Your task to perform on an android device: Search for vegetarian restaurants on Maps Image 0: 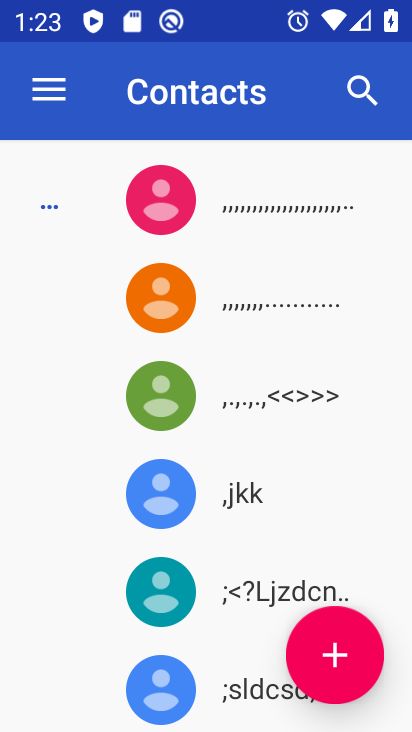
Step 0: press home button
Your task to perform on an android device: Search for vegetarian restaurants on Maps Image 1: 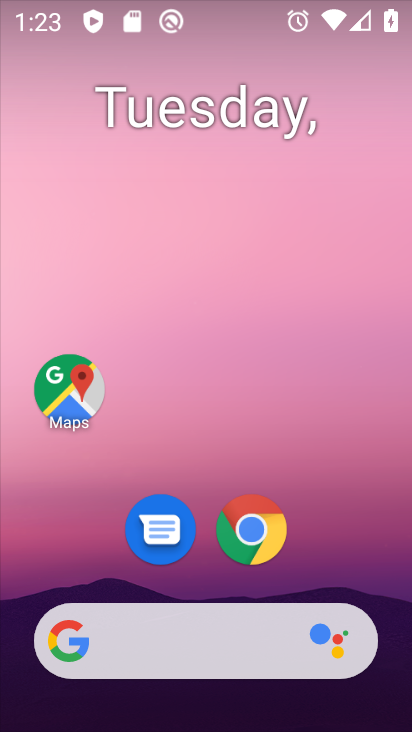
Step 1: click (65, 376)
Your task to perform on an android device: Search for vegetarian restaurants on Maps Image 2: 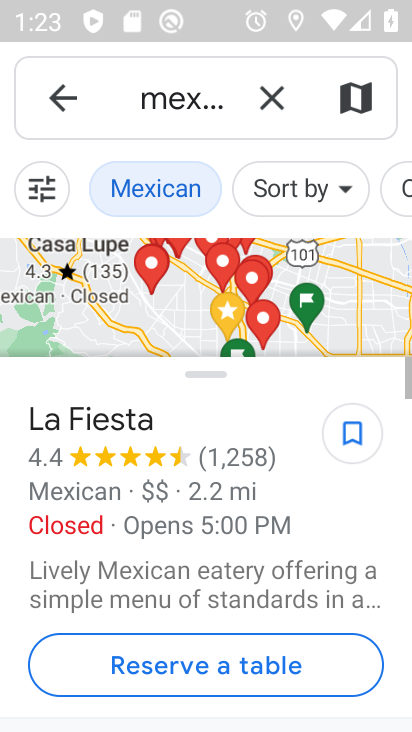
Step 2: click (270, 88)
Your task to perform on an android device: Search for vegetarian restaurants on Maps Image 3: 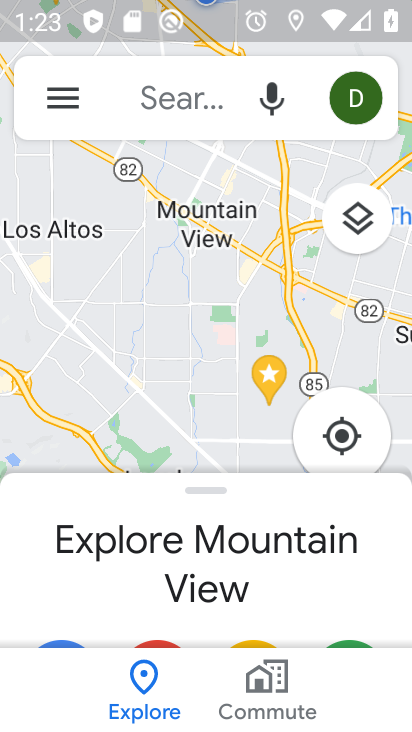
Step 3: click (173, 97)
Your task to perform on an android device: Search for vegetarian restaurants on Maps Image 4: 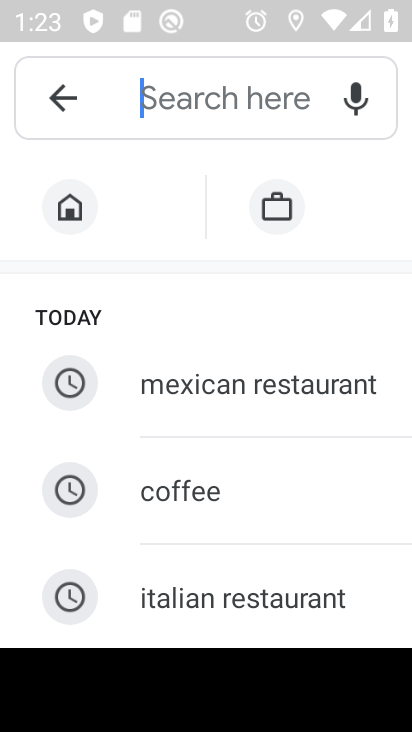
Step 4: drag from (256, 561) to (213, 132)
Your task to perform on an android device: Search for vegetarian restaurants on Maps Image 5: 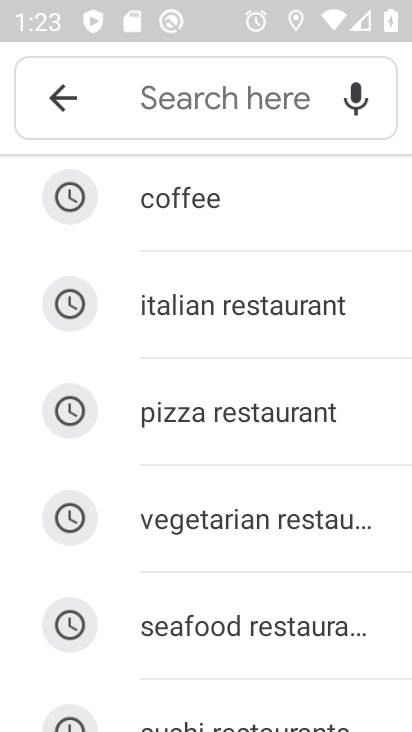
Step 5: click (259, 515)
Your task to perform on an android device: Search for vegetarian restaurants on Maps Image 6: 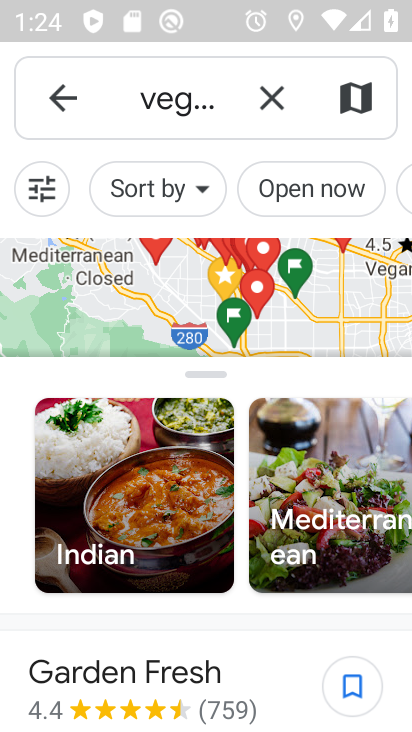
Step 6: task complete